Your task to perform on an android device: change your default location settings in chrome Image 0: 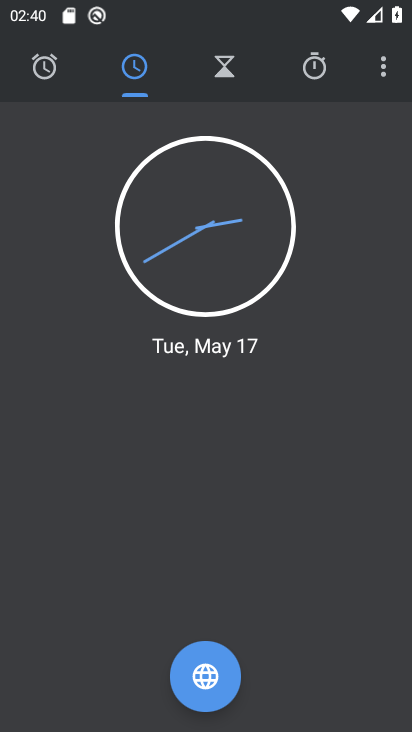
Step 0: press home button
Your task to perform on an android device: change your default location settings in chrome Image 1: 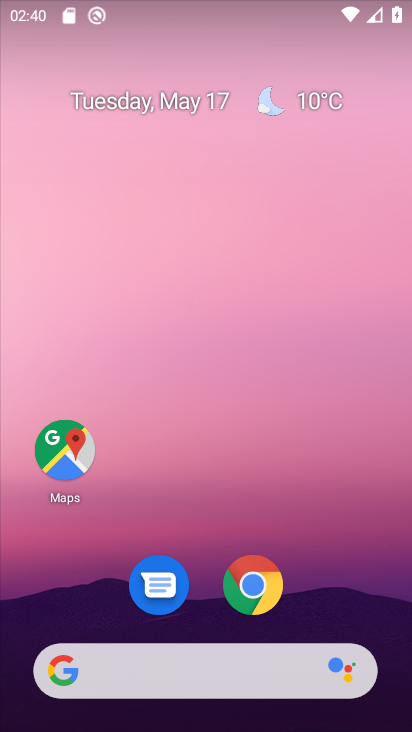
Step 1: drag from (324, 574) to (366, 348)
Your task to perform on an android device: change your default location settings in chrome Image 2: 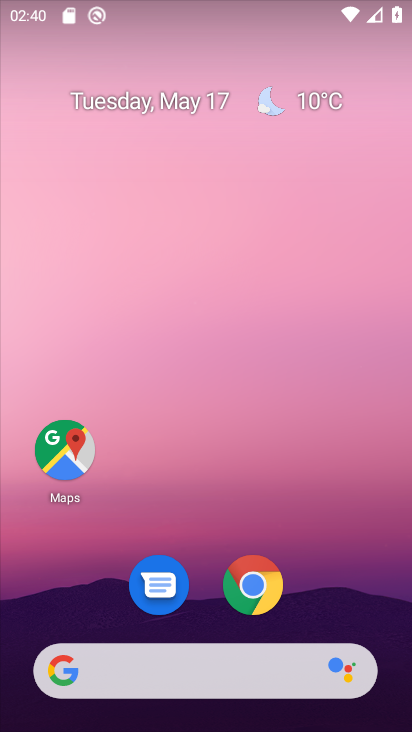
Step 2: click (264, 571)
Your task to perform on an android device: change your default location settings in chrome Image 3: 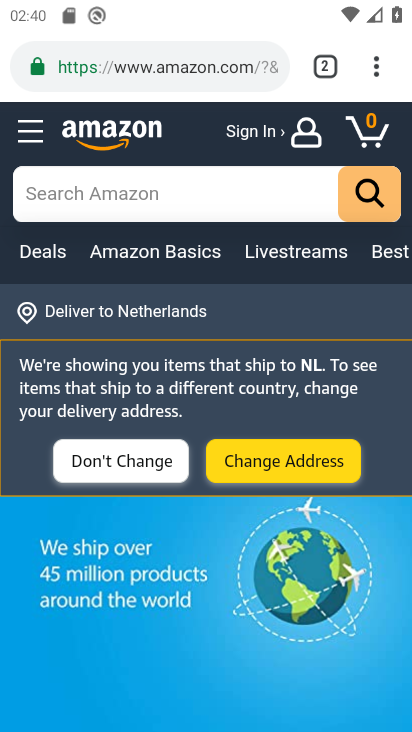
Step 3: click (373, 59)
Your task to perform on an android device: change your default location settings in chrome Image 4: 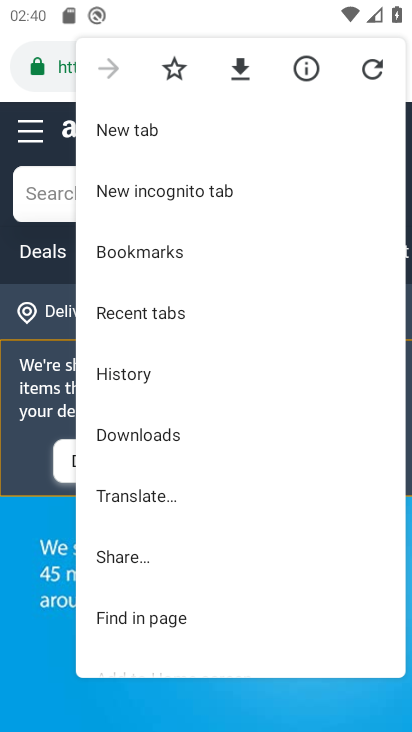
Step 4: drag from (235, 445) to (247, 253)
Your task to perform on an android device: change your default location settings in chrome Image 5: 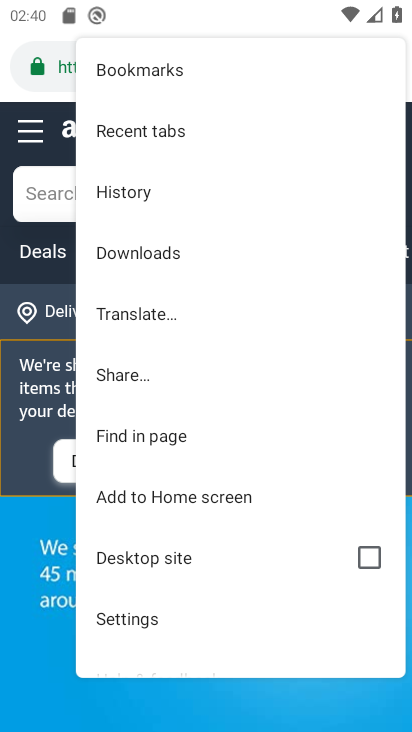
Step 5: click (157, 620)
Your task to perform on an android device: change your default location settings in chrome Image 6: 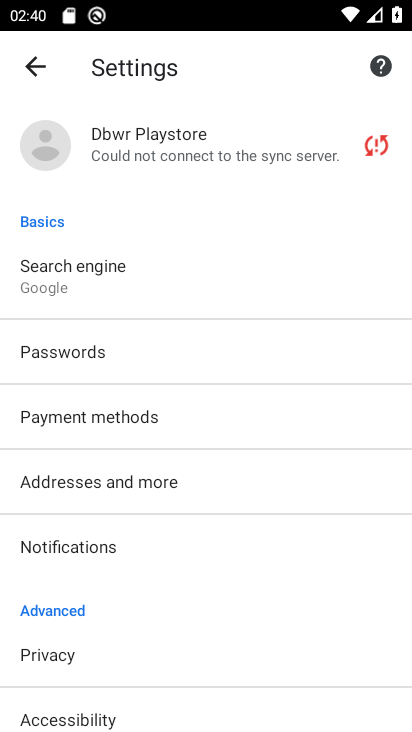
Step 6: drag from (236, 476) to (286, 235)
Your task to perform on an android device: change your default location settings in chrome Image 7: 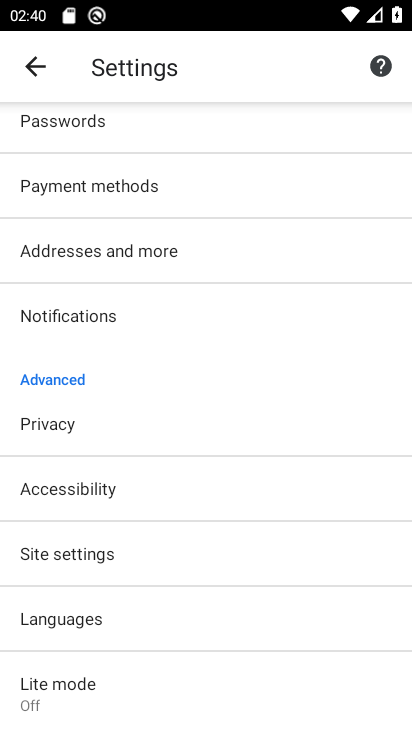
Step 7: click (169, 563)
Your task to perform on an android device: change your default location settings in chrome Image 8: 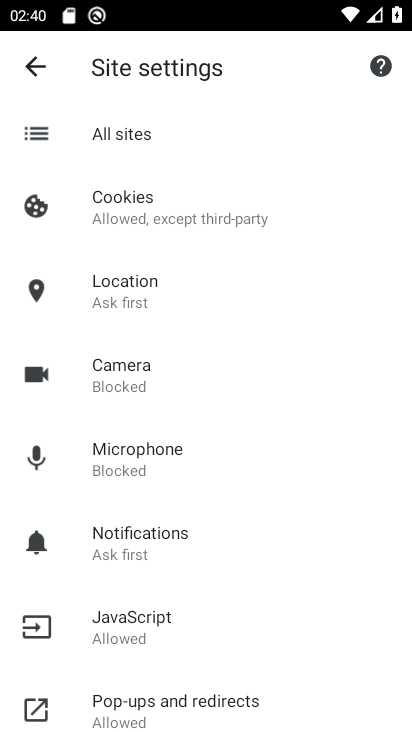
Step 8: click (218, 294)
Your task to perform on an android device: change your default location settings in chrome Image 9: 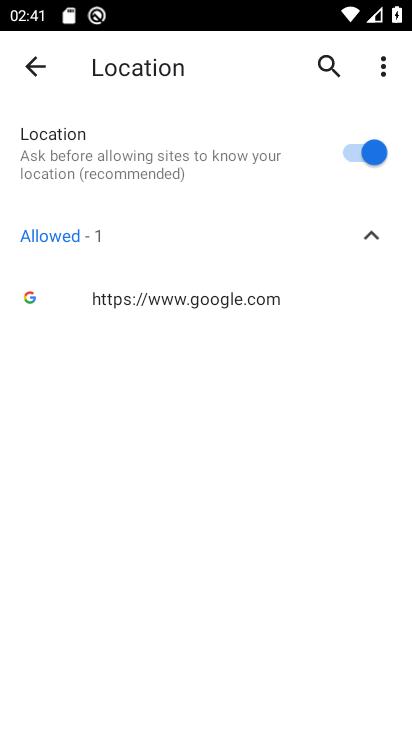
Step 9: click (357, 149)
Your task to perform on an android device: change your default location settings in chrome Image 10: 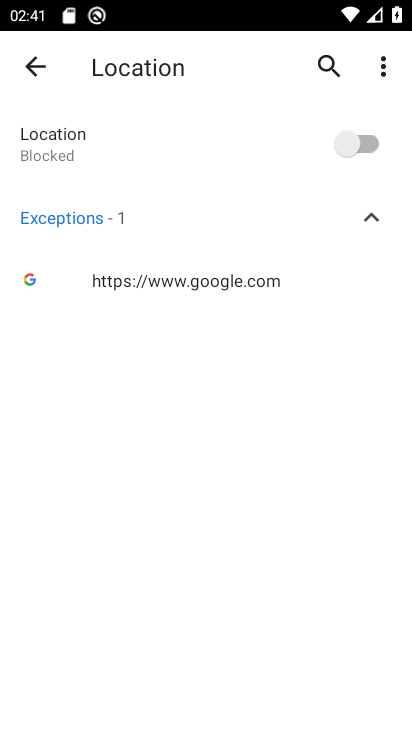
Step 10: task complete